Your task to perform on an android device: What's the weather today? Image 0: 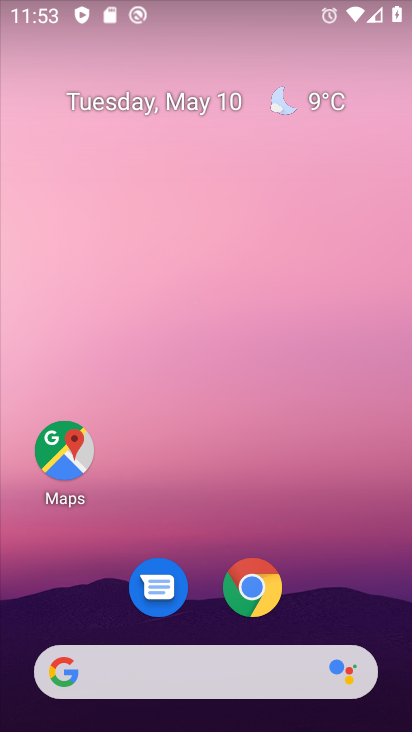
Step 0: click (318, 108)
Your task to perform on an android device: What's the weather today? Image 1: 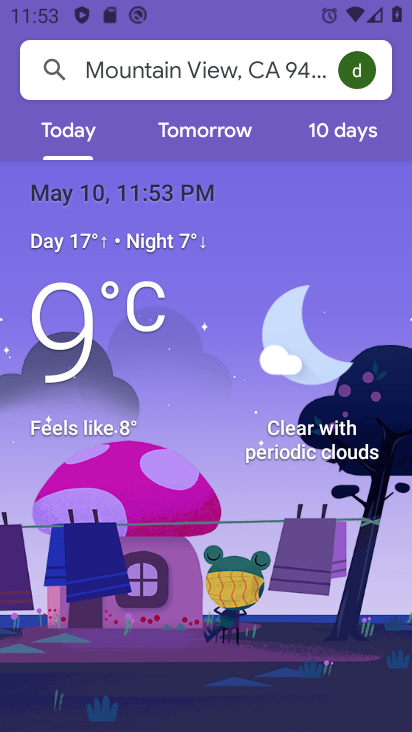
Step 1: task complete